Your task to perform on an android device: Is it going to rain this weekend? Image 0: 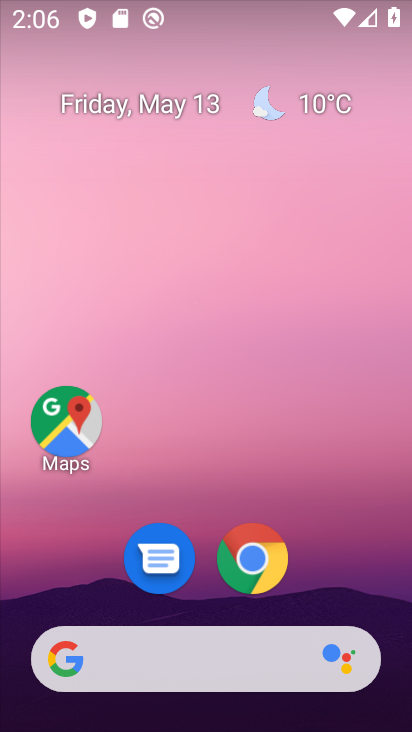
Step 0: drag from (195, 608) to (198, 268)
Your task to perform on an android device: Is it going to rain this weekend? Image 1: 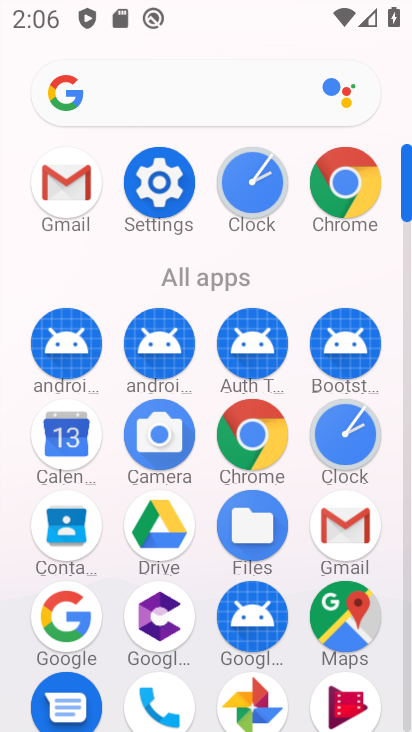
Step 1: click (80, 605)
Your task to perform on an android device: Is it going to rain this weekend? Image 2: 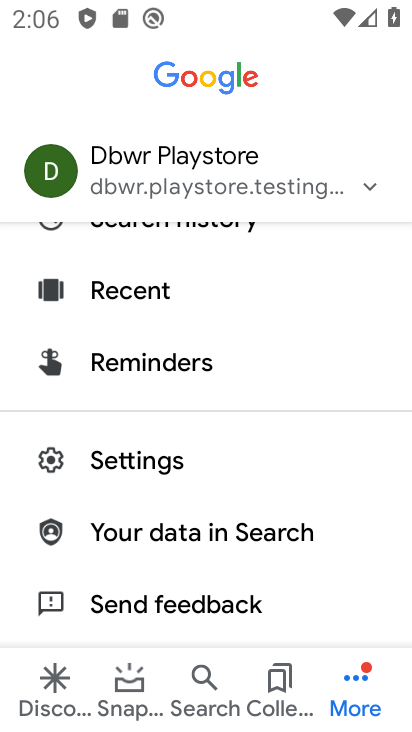
Step 2: press back button
Your task to perform on an android device: Is it going to rain this weekend? Image 3: 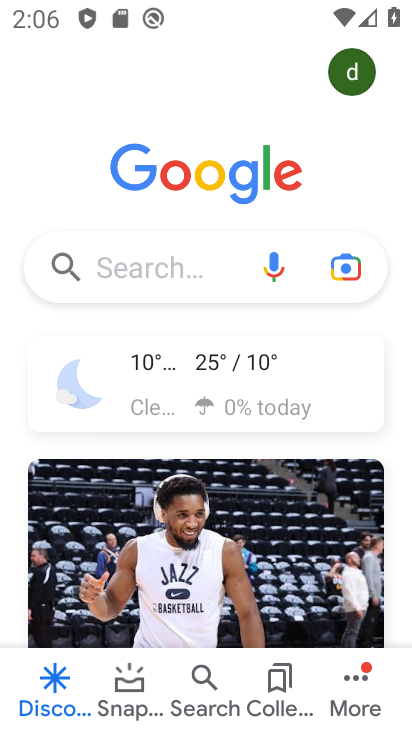
Step 3: click (246, 369)
Your task to perform on an android device: Is it going to rain this weekend? Image 4: 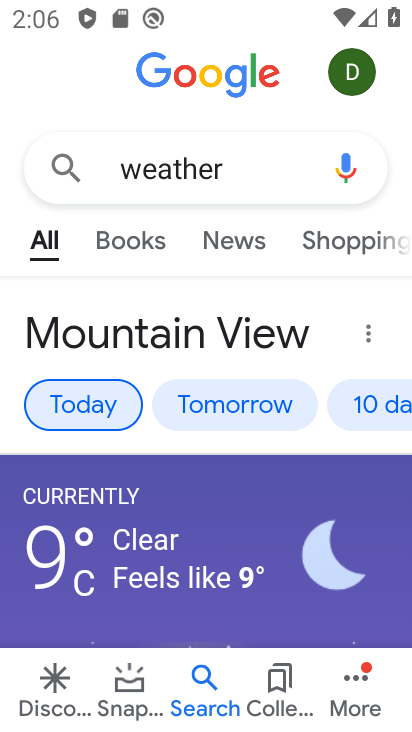
Step 4: click (357, 400)
Your task to perform on an android device: Is it going to rain this weekend? Image 5: 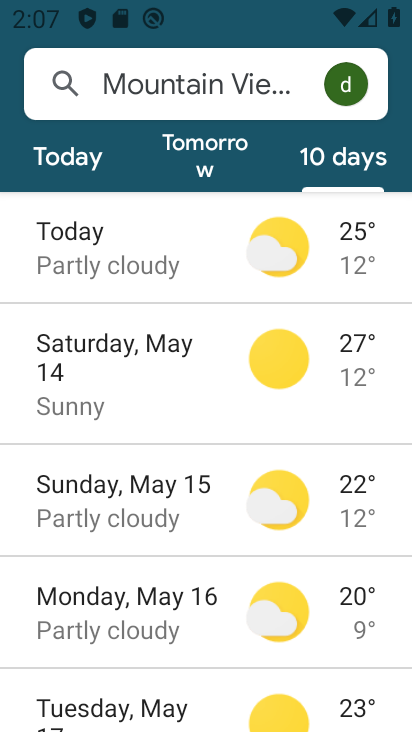
Step 5: task complete